Your task to perform on an android device: Go to Google Image 0: 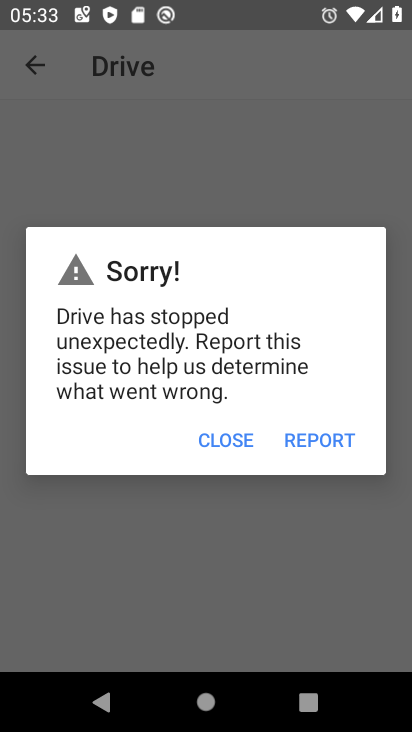
Step 0: press home button
Your task to perform on an android device: Go to Google Image 1: 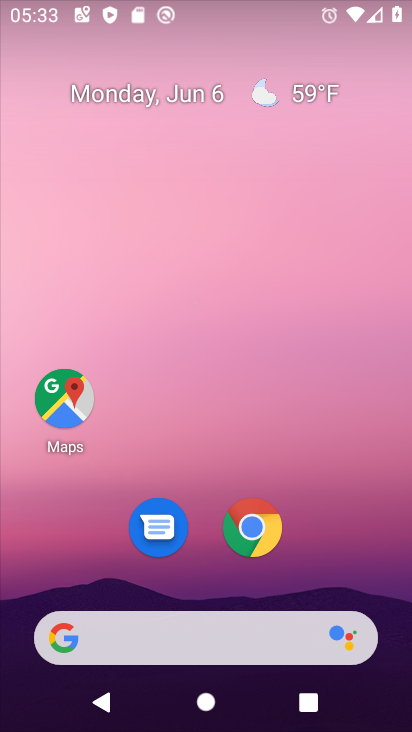
Step 1: drag from (391, 655) to (365, 144)
Your task to perform on an android device: Go to Google Image 2: 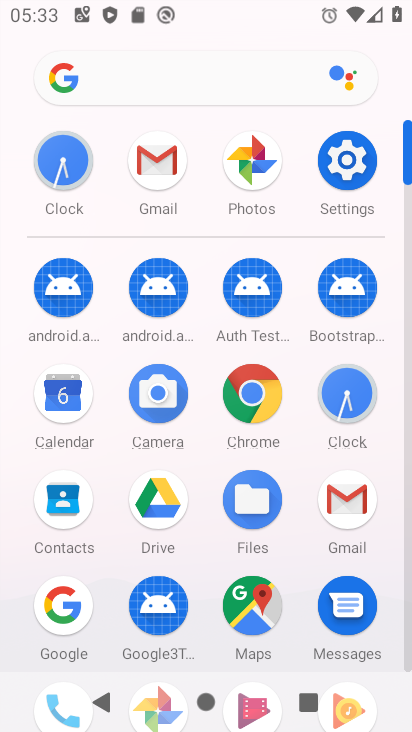
Step 2: click (69, 606)
Your task to perform on an android device: Go to Google Image 3: 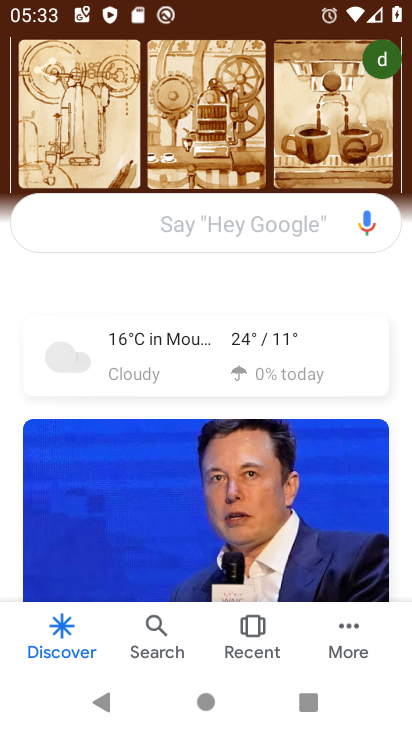
Step 3: task complete